Your task to perform on an android device: Open eBay Image 0: 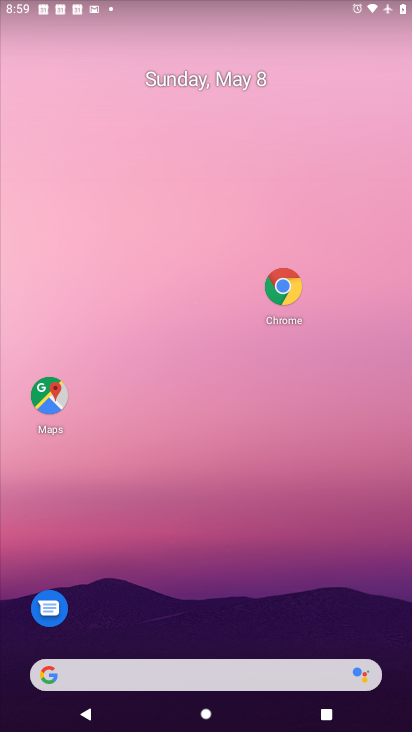
Step 0: drag from (206, 668) to (339, 42)
Your task to perform on an android device: Open eBay Image 1: 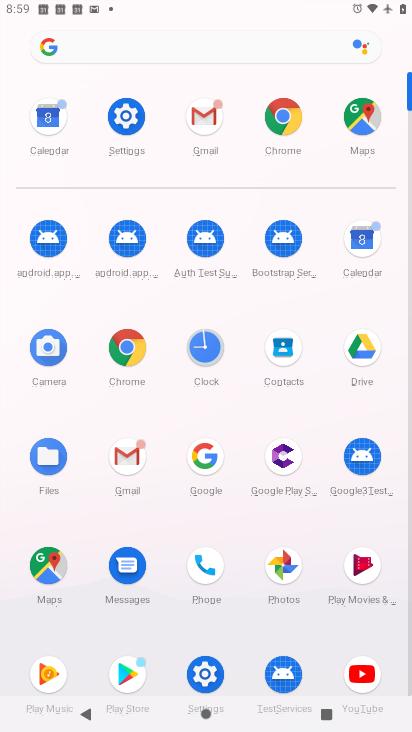
Step 1: click (286, 120)
Your task to perform on an android device: Open eBay Image 2: 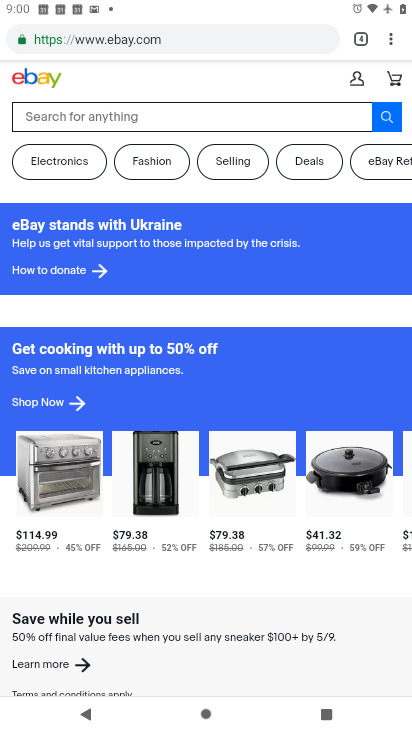
Step 2: task complete